Your task to perform on an android device: change the upload size in google photos Image 0: 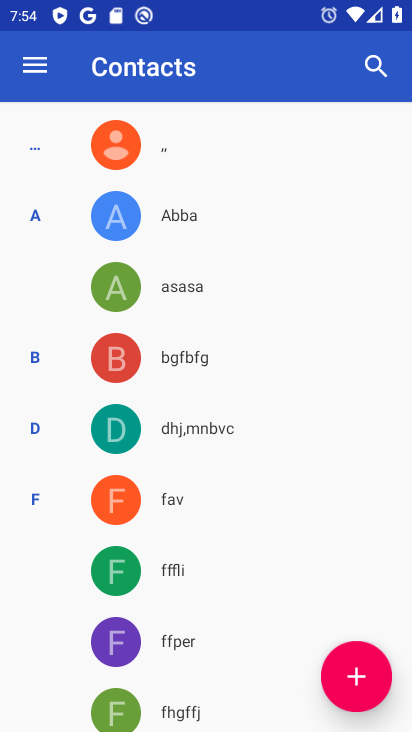
Step 0: press home button
Your task to perform on an android device: change the upload size in google photos Image 1: 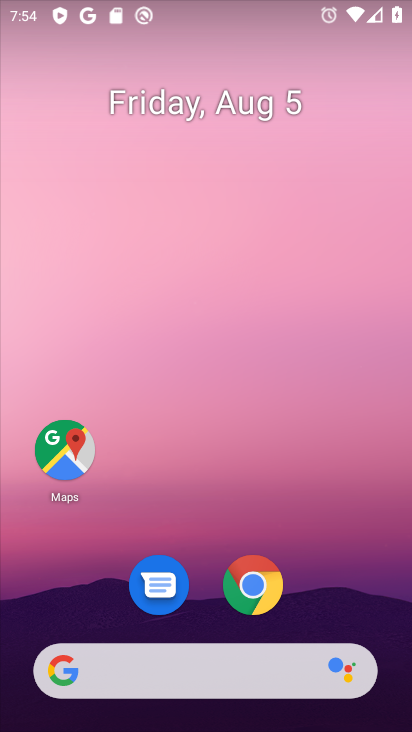
Step 1: drag from (312, 552) to (297, 19)
Your task to perform on an android device: change the upload size in google photos Image 2: 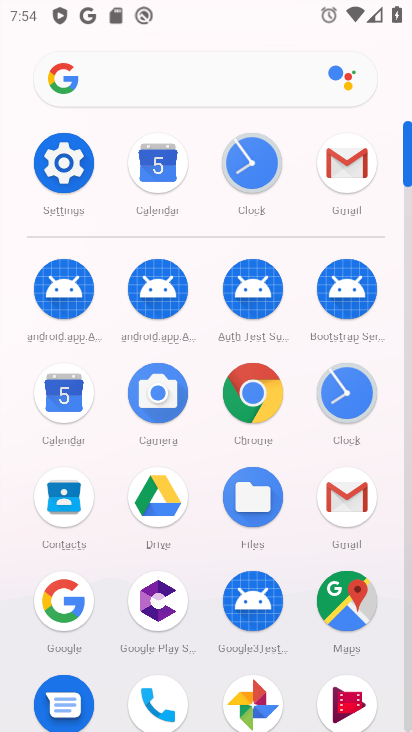
Step 2: click (262, 685)
Your task to perform on an android device: change the upload size in google photos Image 3: 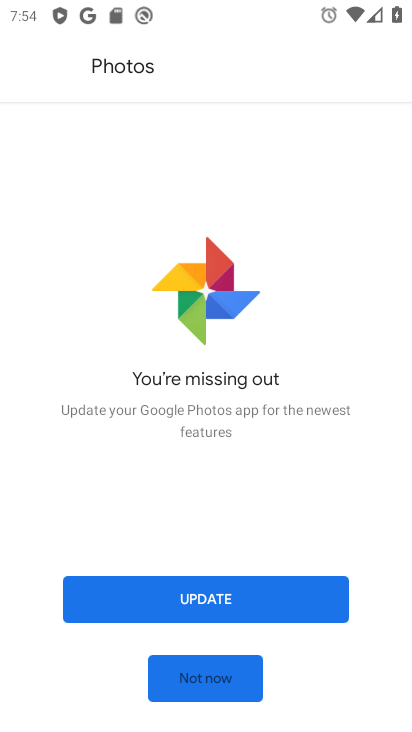
Step 3: click (252, 682)
Your task to perform on an android device: change the upload size in google photos Image 4: 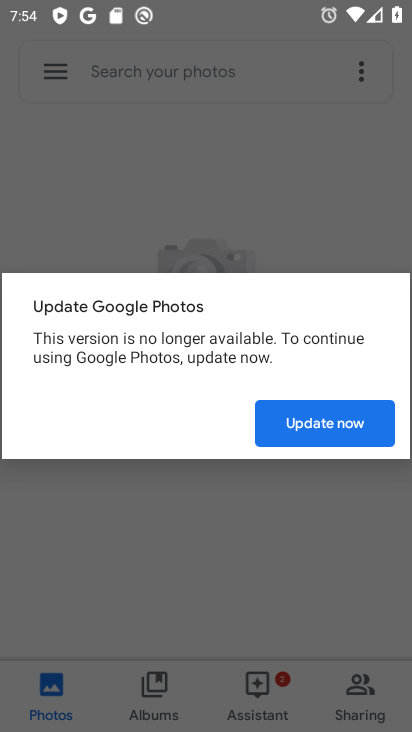
Step 4: click (368, 431)
Your task to perform on an android device: change the upload size in google photos Image 5: 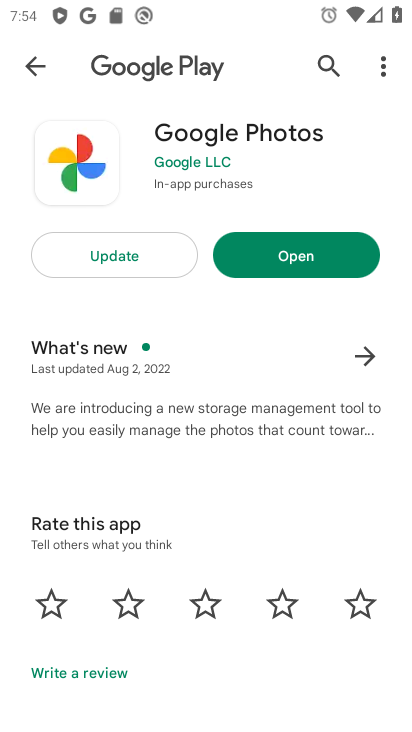
Step 5: click (342, 250)
Your task to perform on an android device: change the upload size in google photos Image 6: 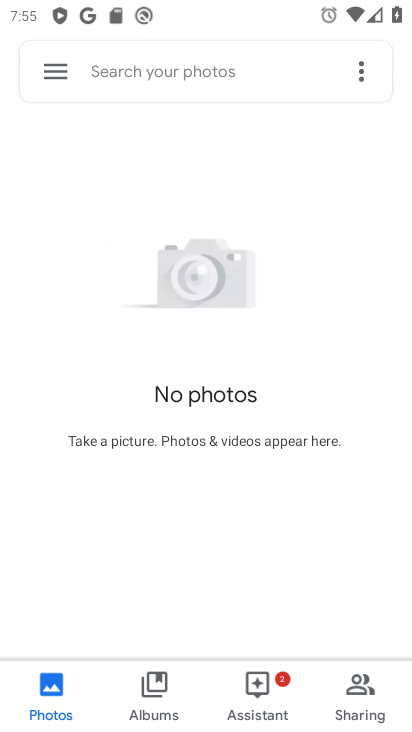
Step 6: click (53, 66)
Your task to perform on an android device: change the upload size in google photos Image 7: 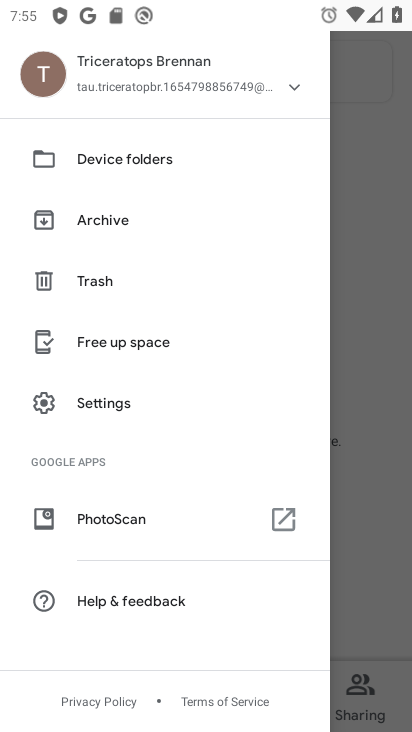
Step 7: click (93, 396)
Your task to perform on an android device: change the upload size in google photos Image 8: 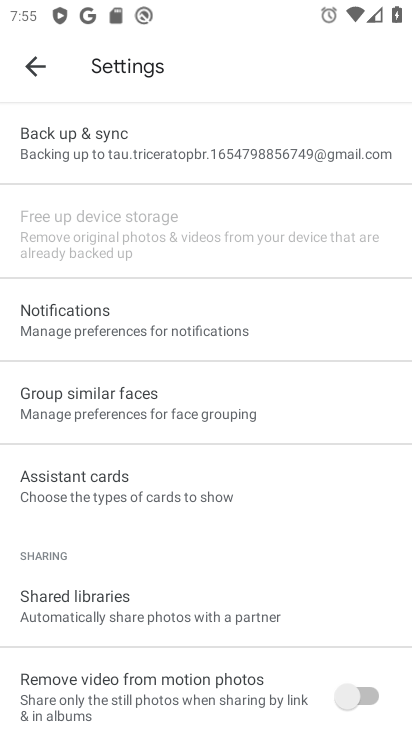
Step 8: click (128, 147)
Your task to perform on an android device: change the upload size in google photos Image 9: 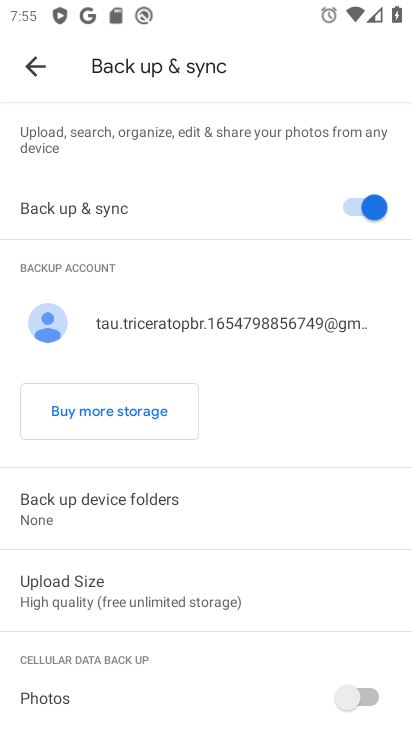
Step 9: click (129, 579)
Your task to perform on an android device: change the upload size in google photos Image 10: 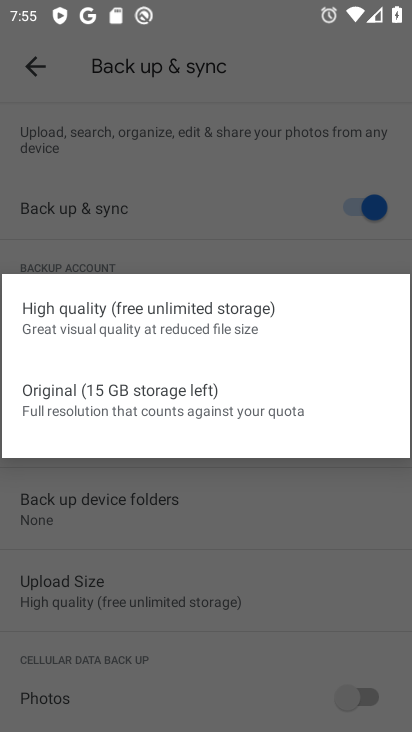
Step 10: click (157, 384)
Your task to perform on an android device: change the upload size in google photos Image 11: 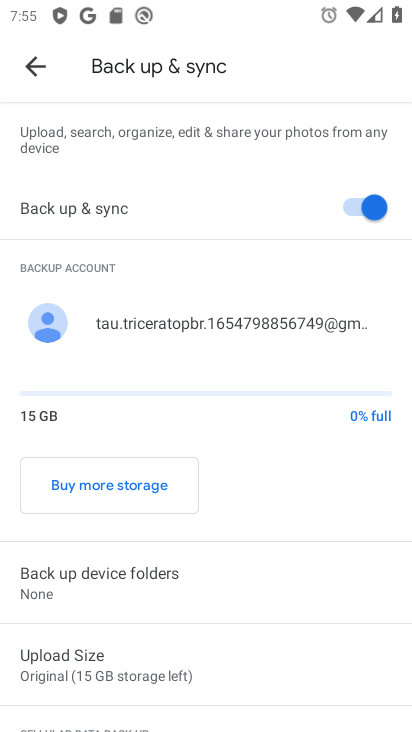
Step 11: task complete